Your task to perform on an android device: turn off airplane mode Image 0: 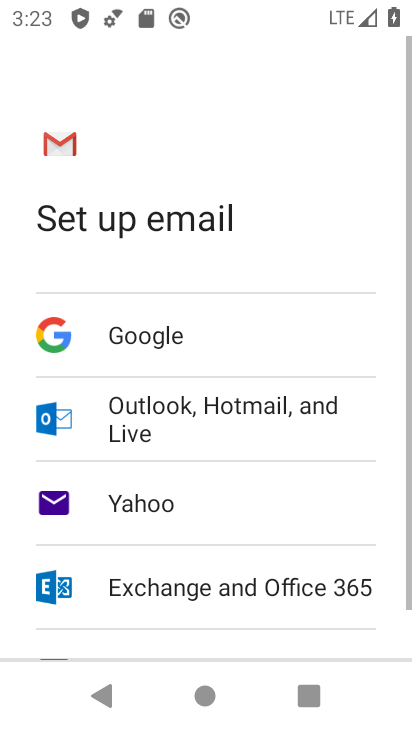
Step 0: press home button
Your task to perform on an android device: turn off airplane mode Image 1: 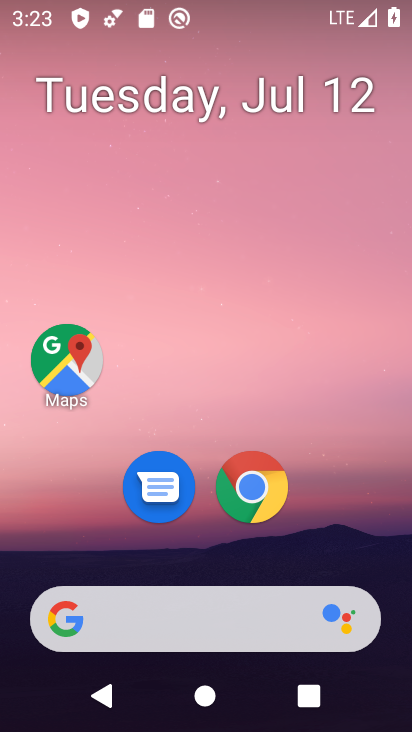
Step 1: drag from (205, 619) to (272, 4)
Your task to perform on an android device: turn off airplane mode Image 2: 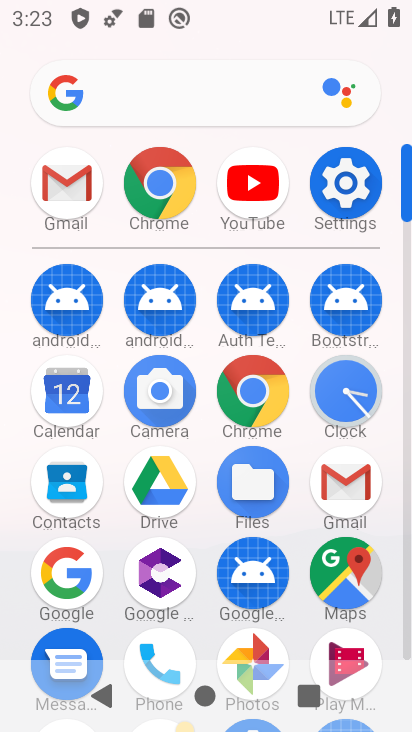
Step 2: click (345, 205)
Your task to perform on an android device: turn off airplane mode Image 3: 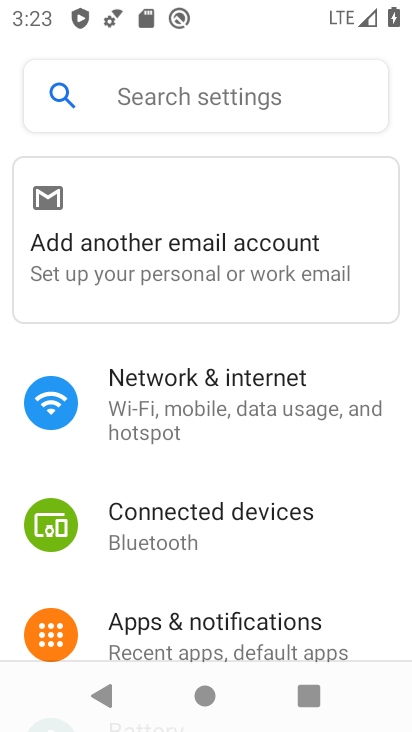
Step 3: click (232, 273)
Your task to perform on an android device: turn off airplane mode Image 4: 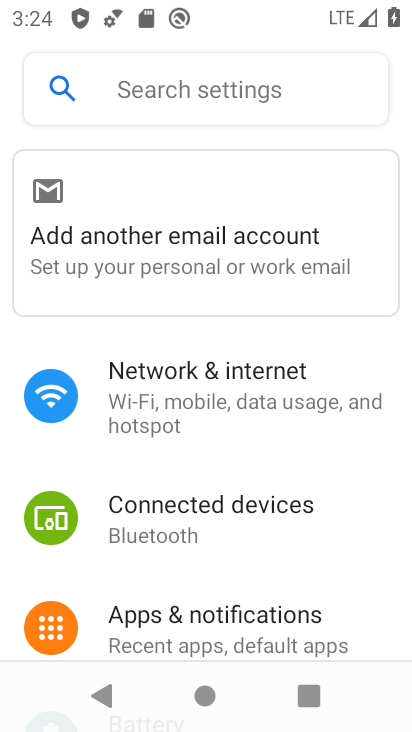
Step 4: drag from (192, 574) to (259, 240)
Your task to perform on an android device: turn off airplane mode Image 5: 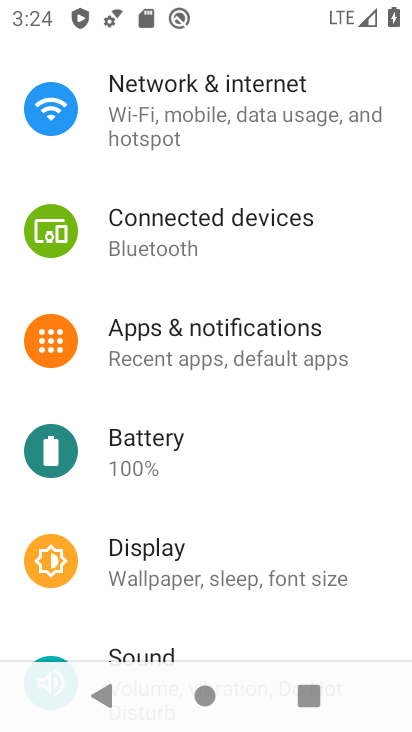
Step 5: drag from (221, 544) to (260, 254)
Your task to perform on an android device: turn off airplane mode Image 6: 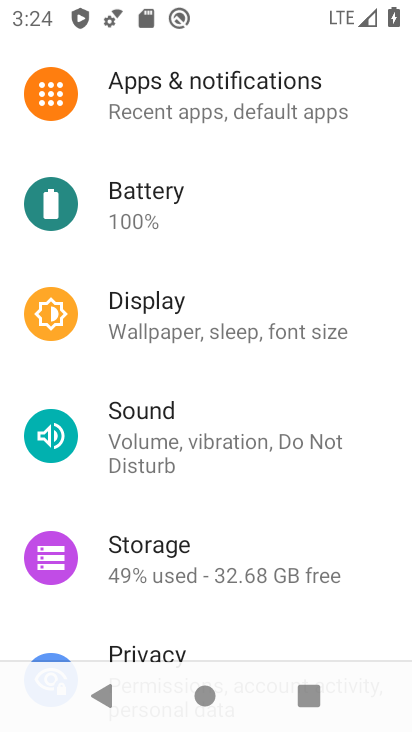
Step 6: drag from (208, 229) to (162, 663)
Your task to perform on an android device: turn off airplane mode Image 7: 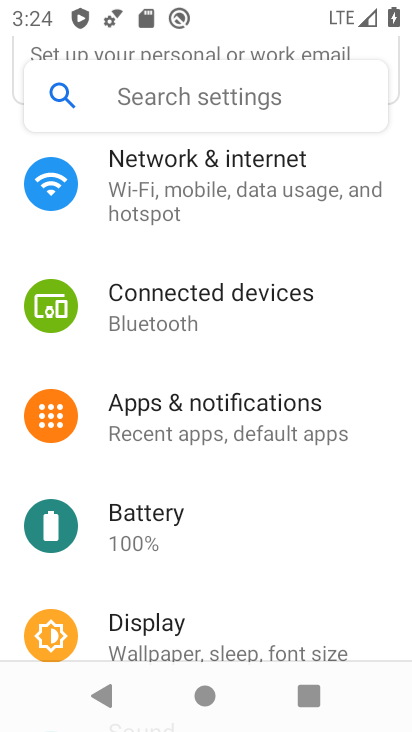
Step 7: drag from (234, 213) to (239, 603)
Your task to perform on an android device: turn off airplane mode Image 8: 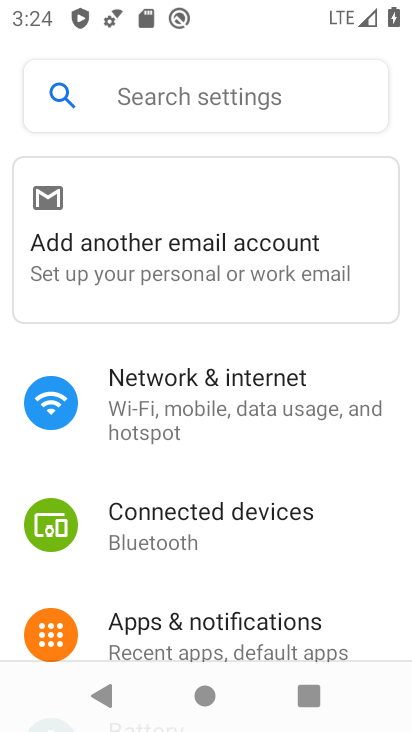
Step 8: click (272, 396)
Your task to perform on an android device: turn off airplane mode Image 9: 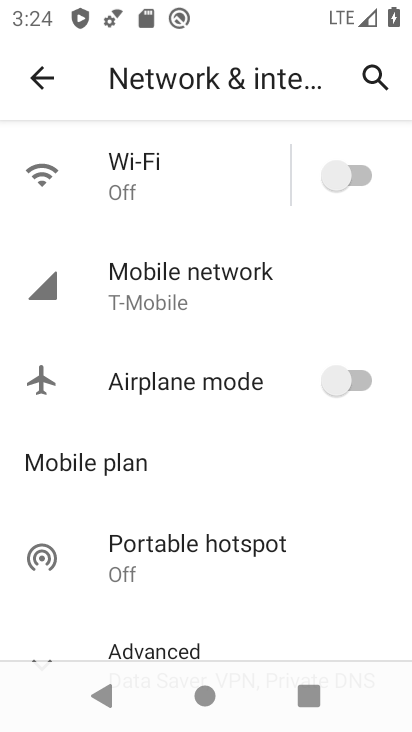
Step 9: task complete